Your task to perform on an android device: Go to notification settings Image 0: 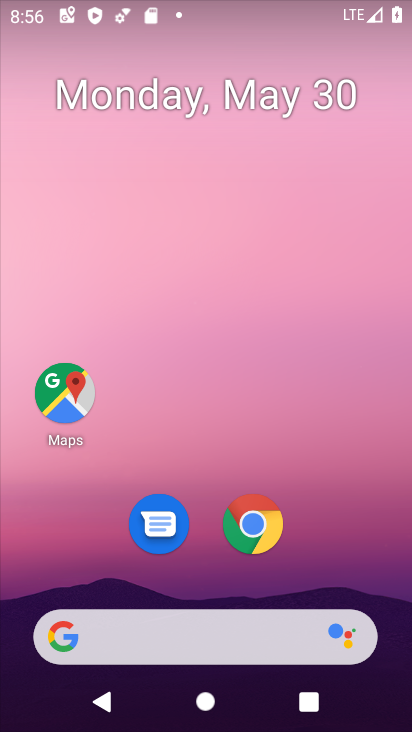
Step 0: drag from (337, 505) to (306, 0)
Your task to perform on an android device: Go to notification settings Image 1: 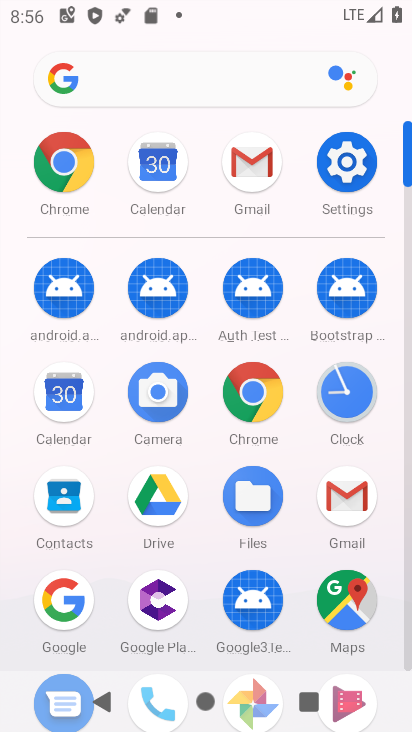
Step 1: click (345, 158)
Your task to perform on an android device: Go to notification settings Image 2: 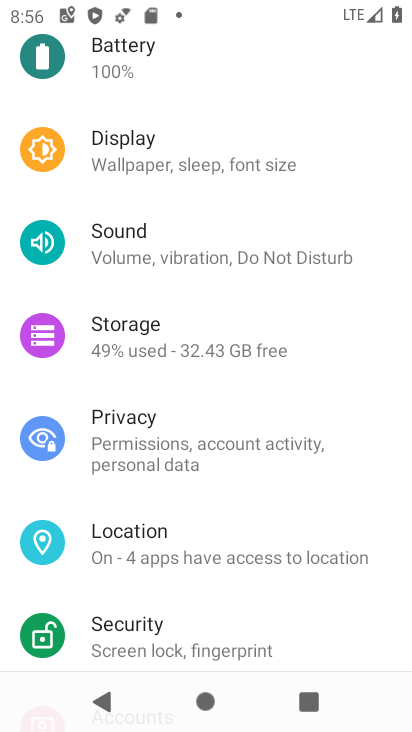
Step 2: drag from (231, 207) to (199, 650)
Your task to perform on an android device: Go to notification settings Image 3: 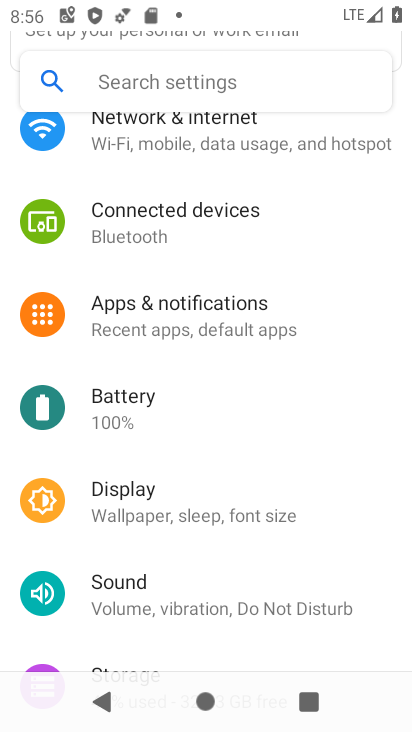
Step 3: click (216, 317)
Your task to perform on an android device: Go to notification settings Image 4: 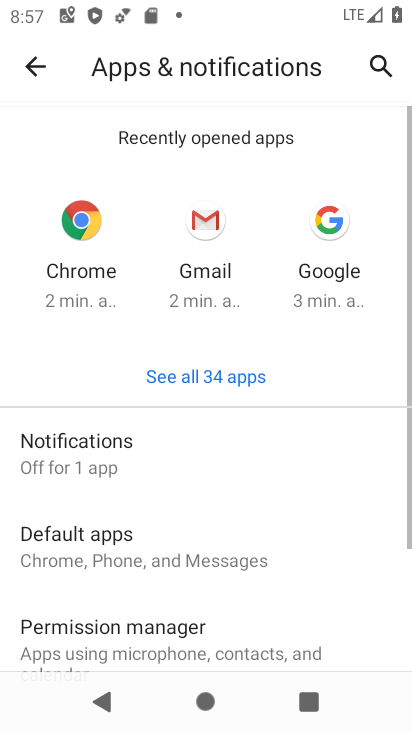
Step 4: click (174, 424)
Your task to perform on an android device: Go to notification settings Image 5: 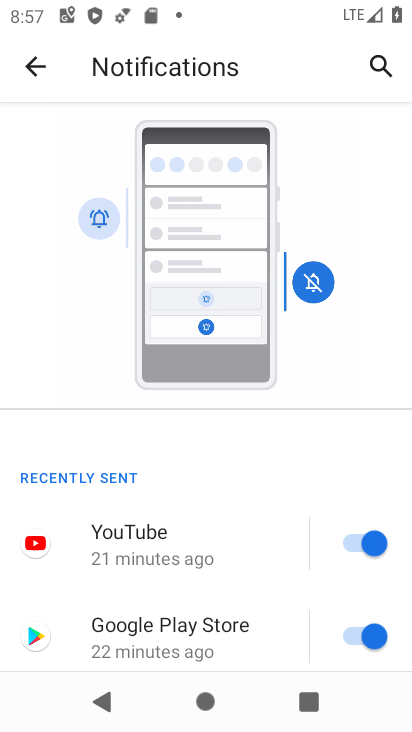
Step 5: task complete